Your task to perform on an android device: toggle pop-ups in chrome Image 0: 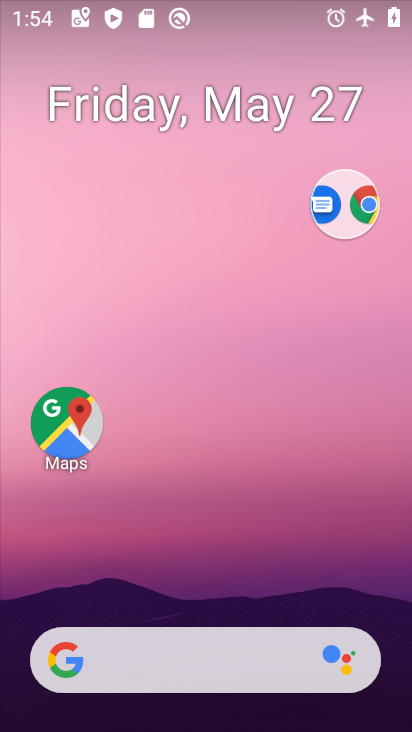
Step 0: drag from (196, 635) to (229, 227)
Your task to perform on an android device: toggle pop-ups in chrome Image 1: 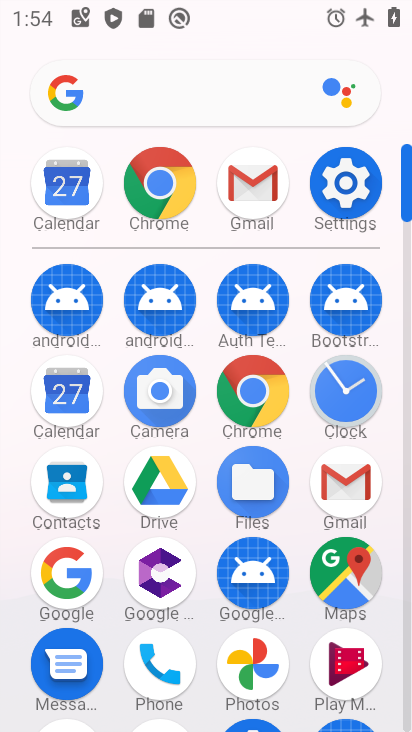
Step 1: click (159, 214)
Your task to perform on an android device: toggle pop-ups in chrome Image 2: 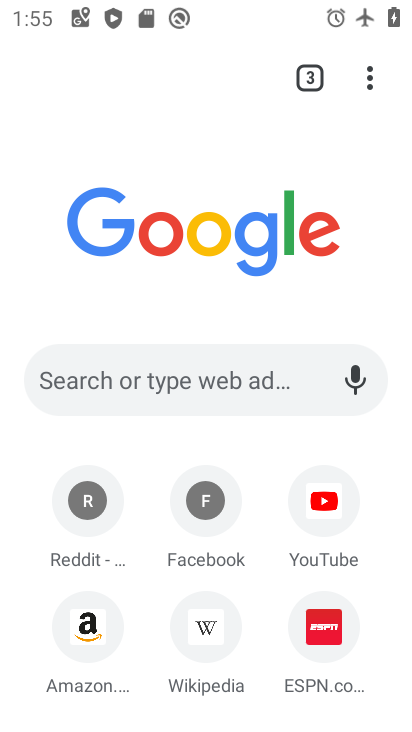
Step 2: click (374, 90)
Your task to perform on an android device: toggle pop-ups in chrome Image 3: 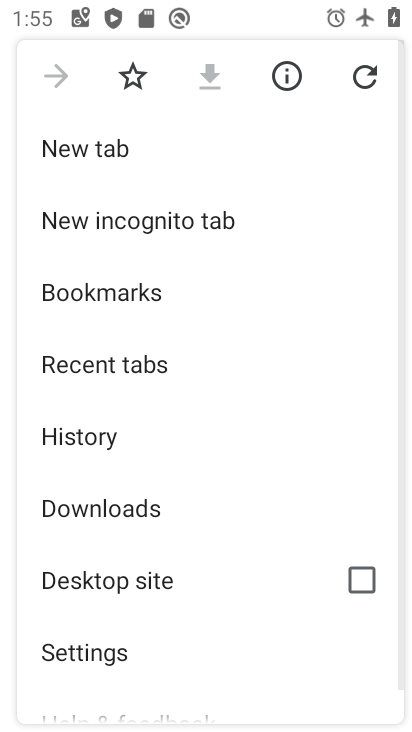
Step 3: drag from (183, 484) to (179, 295)
Your task to perform on an android device: toggle pop-ups in chrome Image 4: 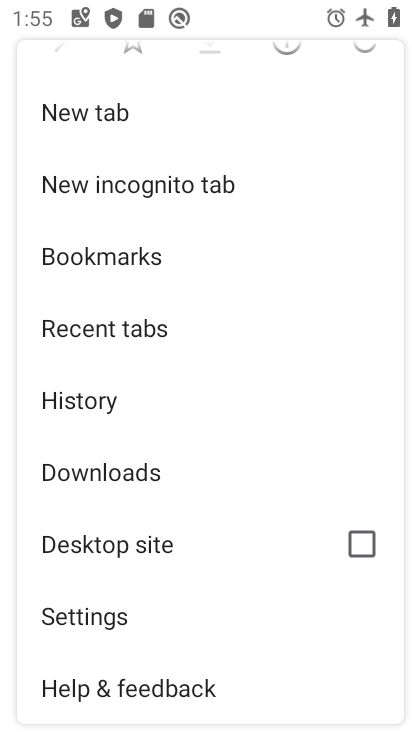
Step 4: drag from (147, 532) to (149, 339)
Your task to perform on an android device: toggle pop-ups in chrome Image 5: 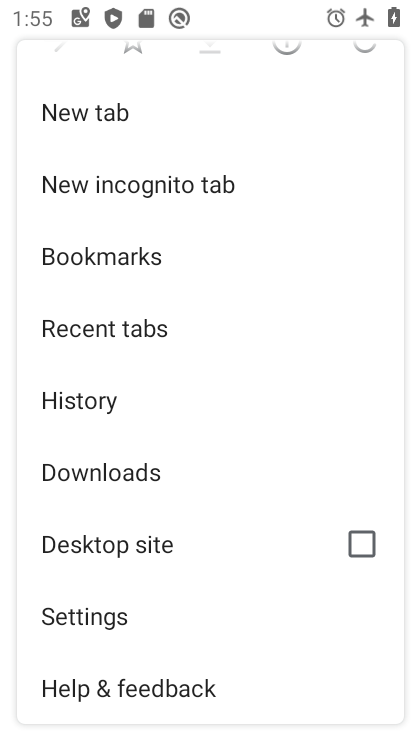
Step 5: click (126, 609)
Your task to perform on an android device: toggle pop-ups in chrome Image 6: 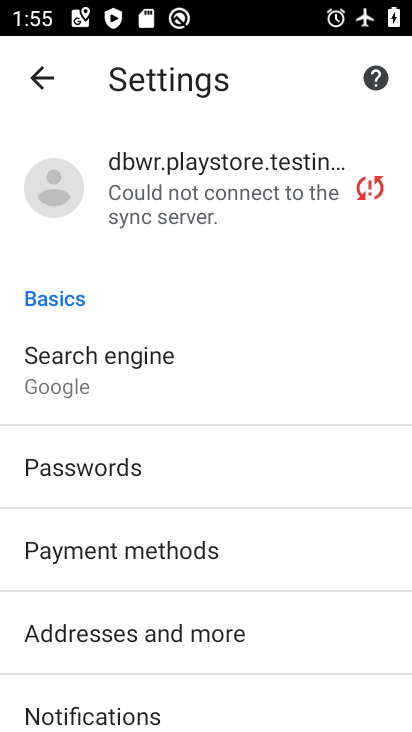
Step 6: drag from (147, 566) to (110, 95)
Your task to perform on an android device: toggle pop-ups in chrome Image 7: 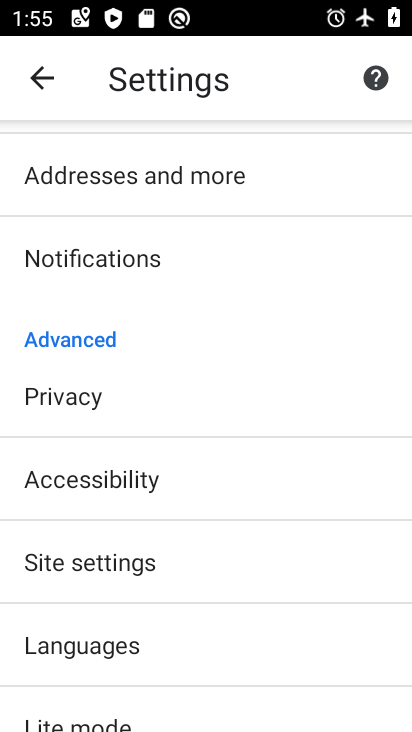
Step 7: drag from (106, 554) to (108, 110)
Your task to perform on an android device: toggle pop-ups in chrome Image 8: 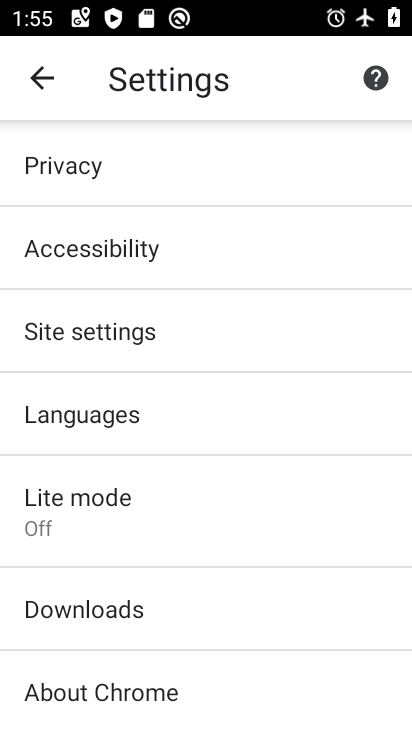
Step 8: drag from (179, 487) to (158, 296)
Your task to perform on an android device: toggle pop-ups in chrome Image 9: 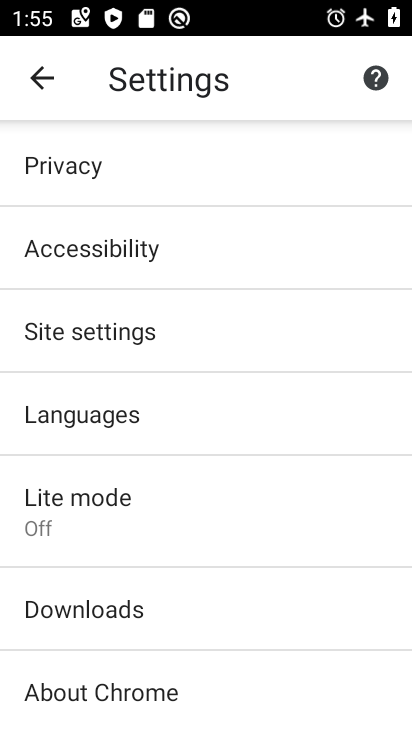
Step 9: click (159, 335)
Your task to perform on an android device: toggle pop-ups in chrome Image 10: 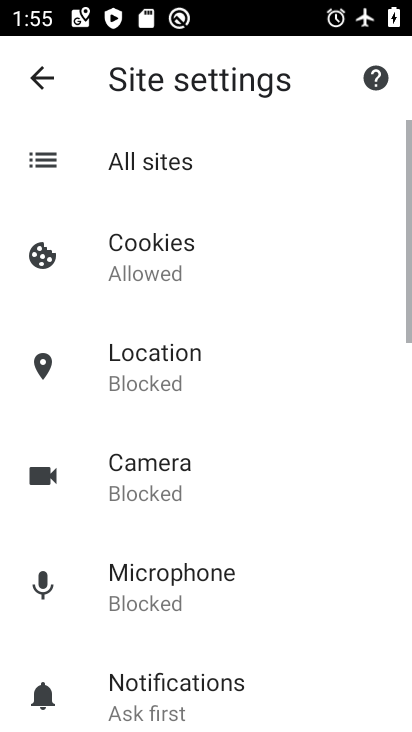
Step 10: drag from (175, 551) to (174, 243)
Your task to perform on an android device: toggle pop-ups in chrome Image 11: 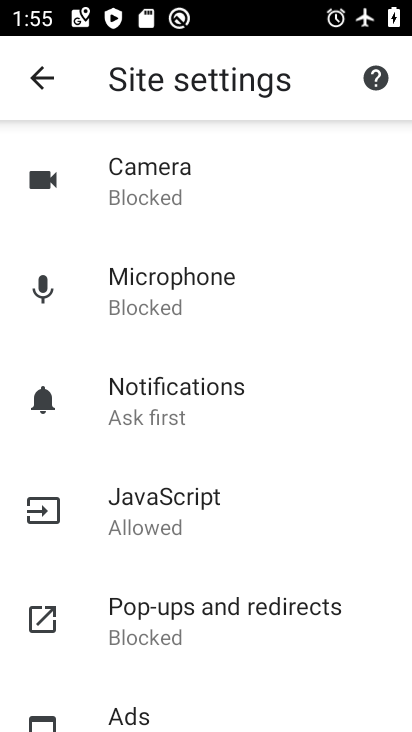
Step 11: click (190, 619)
Your task to perform on an android device: toggle pop-ups in chrome Image 12: 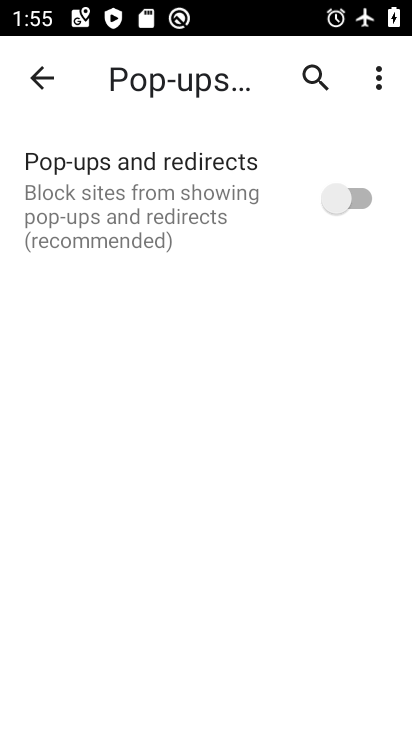
Step 12: click (337, 197)
Your task to perform on an android device: toggle pop-ups in chrome Image 13: 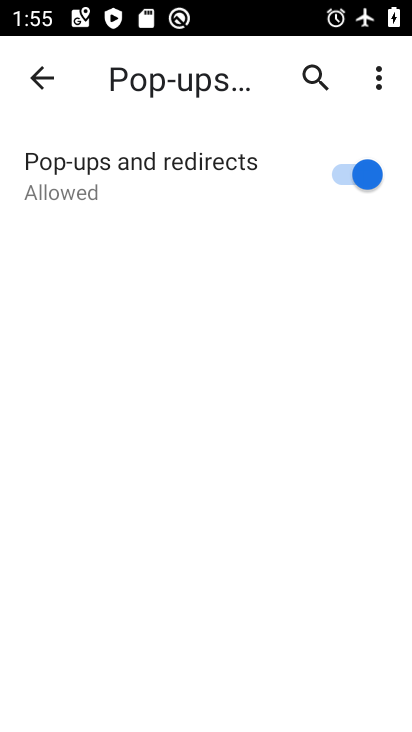
Step 13: task complete